Your task to perform on an android device: Go to Maps Image 0: 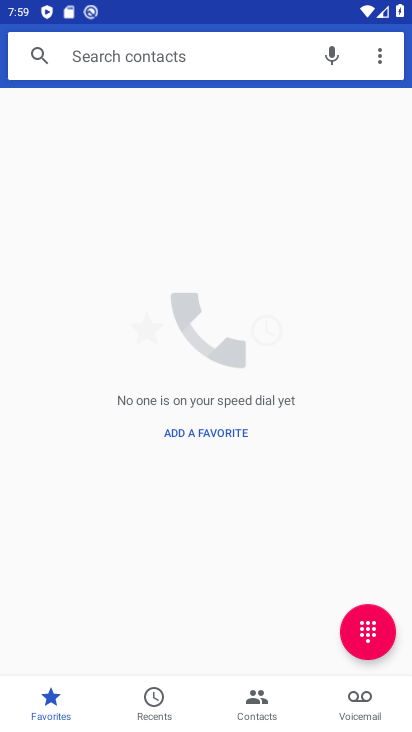
Step 0: press home button
Your task to perform on an android device: Go to Maps Image 1: 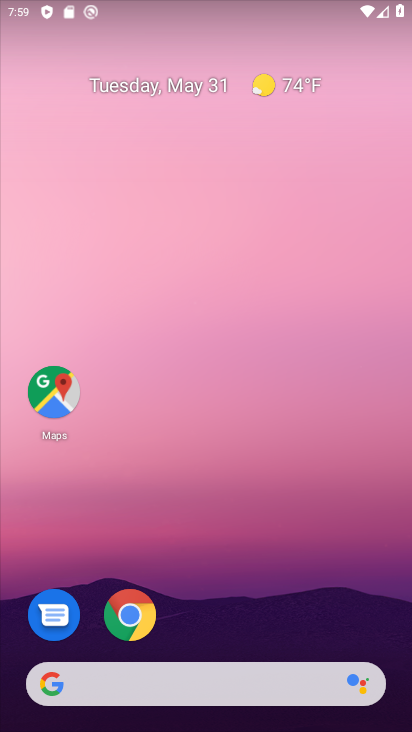
Step 1: click (47, 401)
Your task to perform on an android device: Go to Maps Image 2: 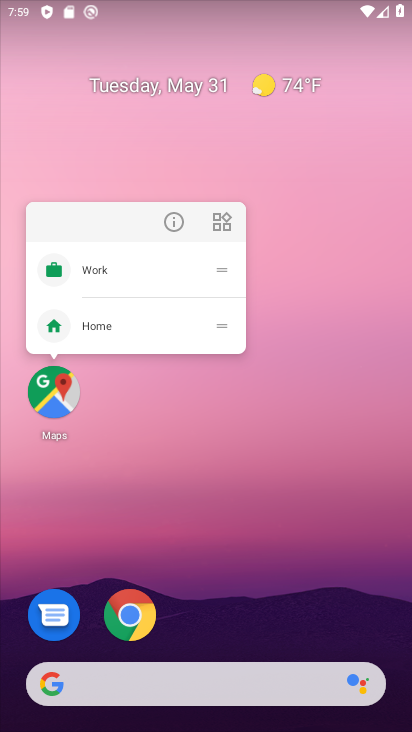
Step 2: click (52, 397)
Your task to perform on an android device: Go to Maps Image 3: 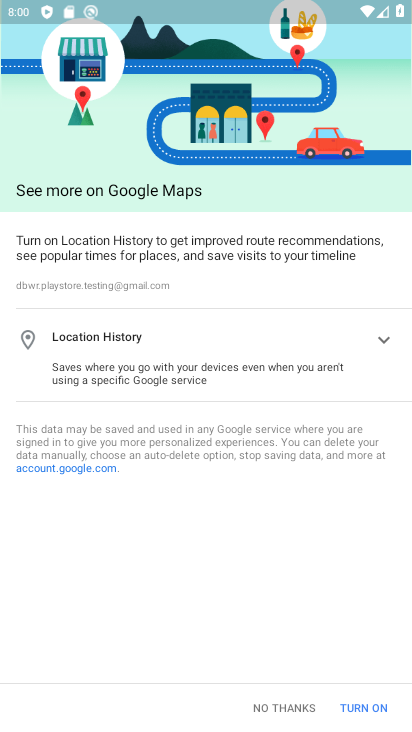
Step 3: click (273, 711)
Your task to perform on an android device: Go to Maps Image 4: 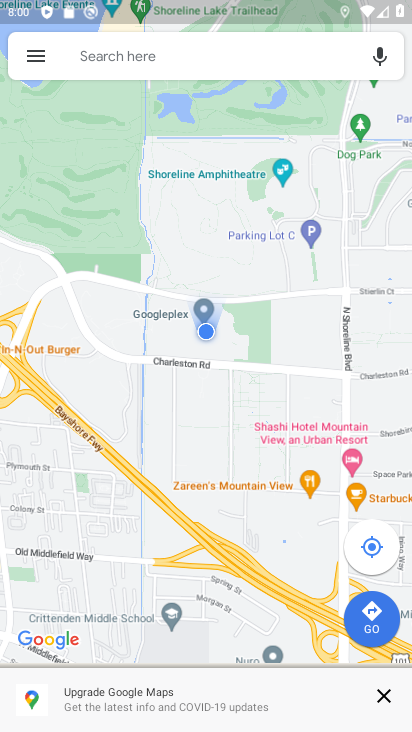
Step 4: task complete